Your task to perform on an android device: Open Google Image 0: 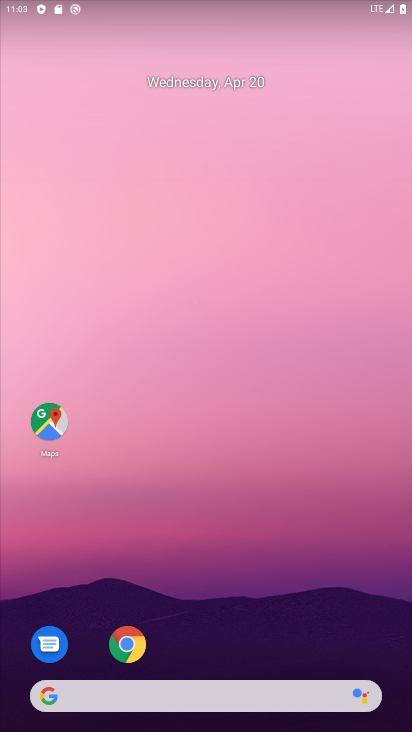
Step 0: drag from (383, 603) to (300, 4)
Your task to perform on an android device: Open Google Image 1: 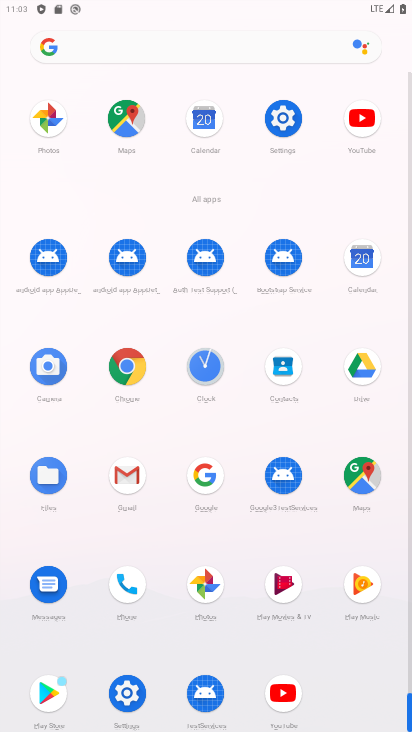
Step 1: click (209, 473)
Your task to perform on an android device: Open Google Image 2: 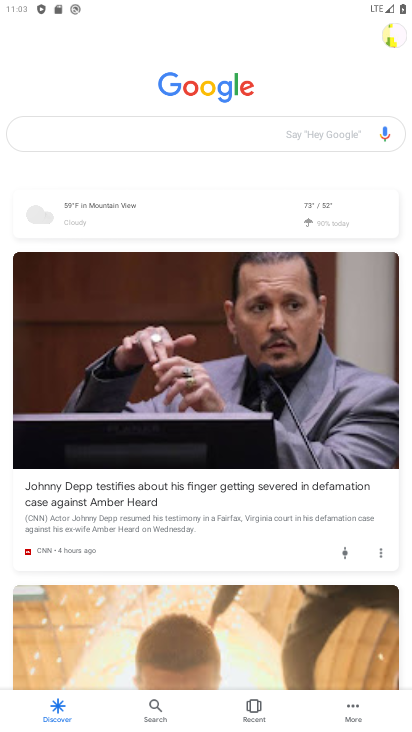
Step 2: task complete